Your task to perform on an android device: choose inbox layout in the gmail app Image 0: 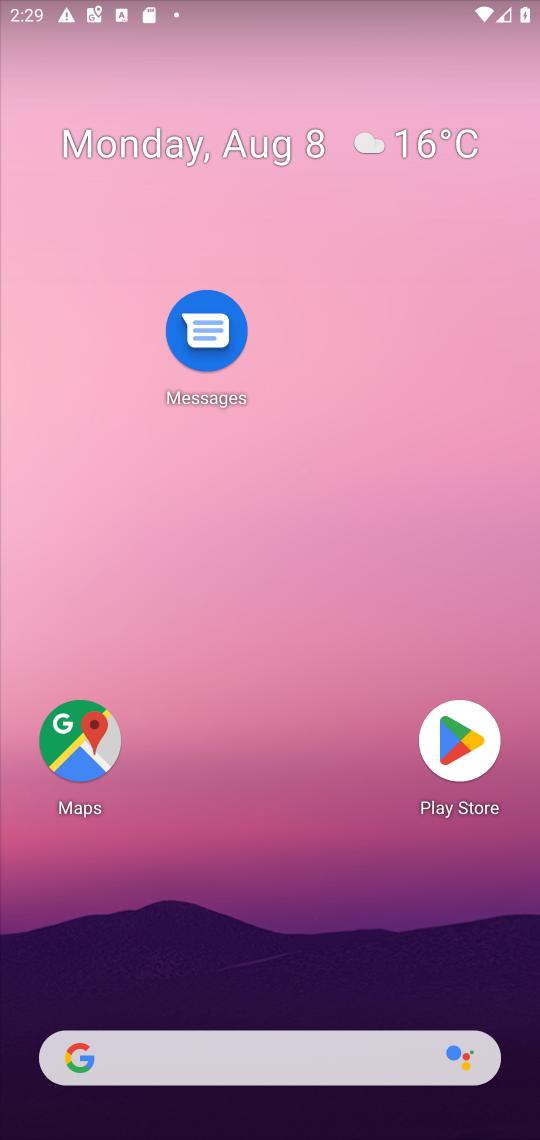
Step 0: drag from (349, 1030) to (340, 0)
Your task to perform on an android device: choose inbox layout in the gmail app Image 1: 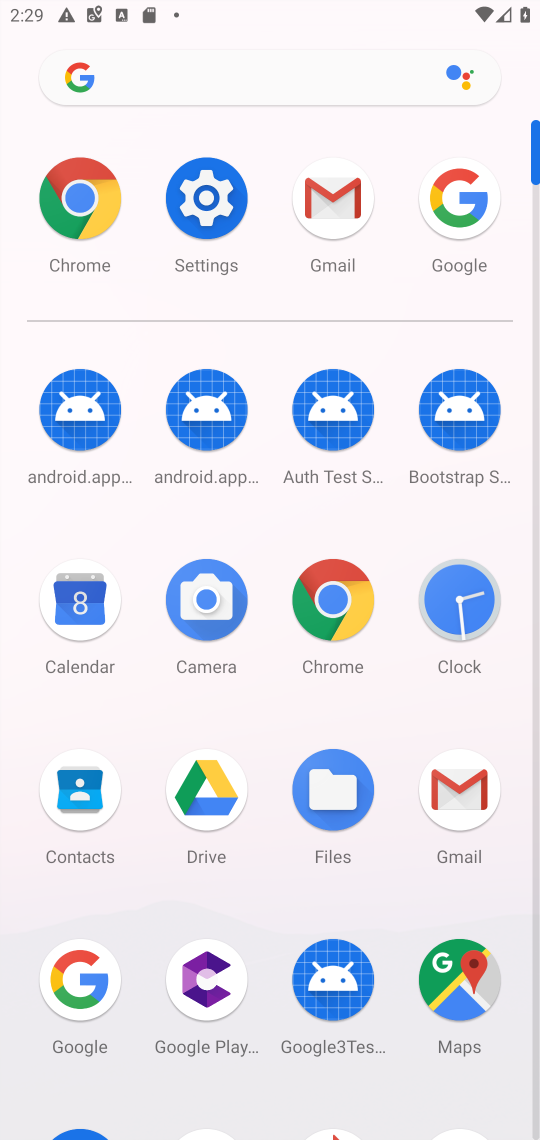
Step 1: click (467, 808)
Your task to perform on an android device: choose inbox layout in the gmail app Image 2: 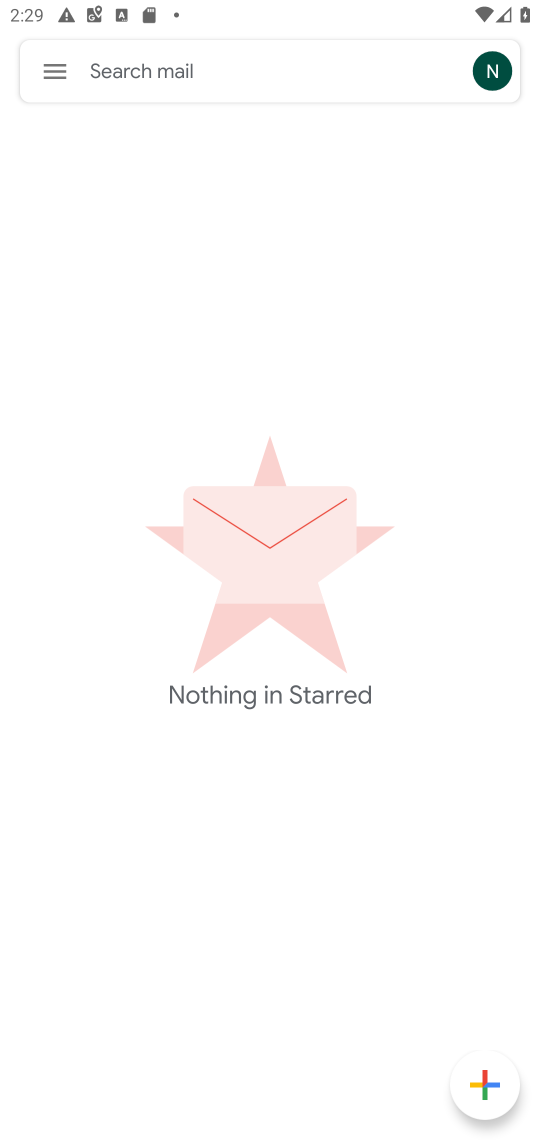
Step 2: click (55, 76)
Your task to perform on an android device: choose inbox layout in the gmail app Image 3: 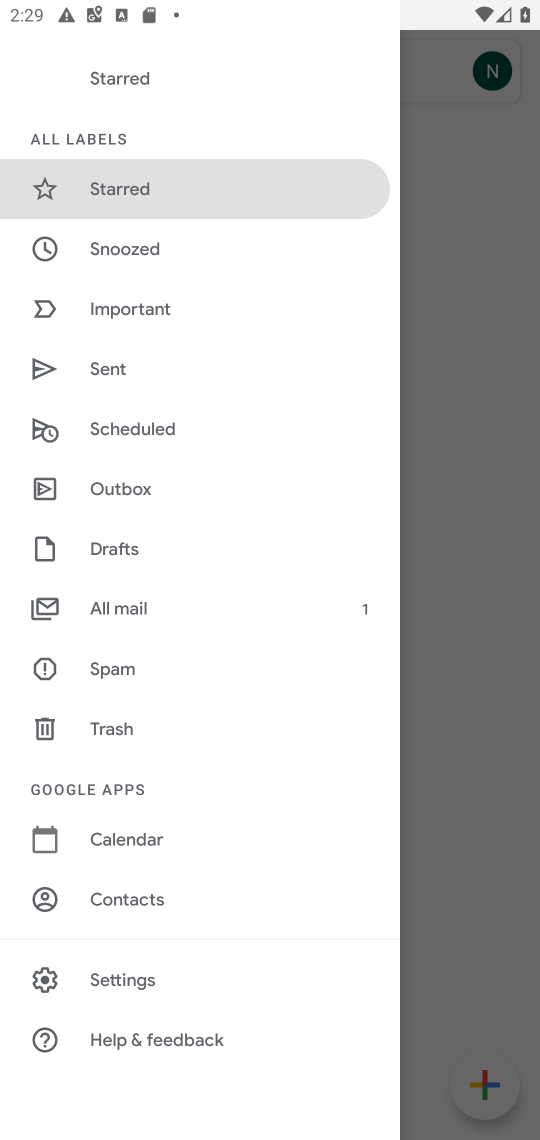
Step 3: click (130, 992)
Your task to perform on an android device: choose inbox layout in the gmail app Image 4: 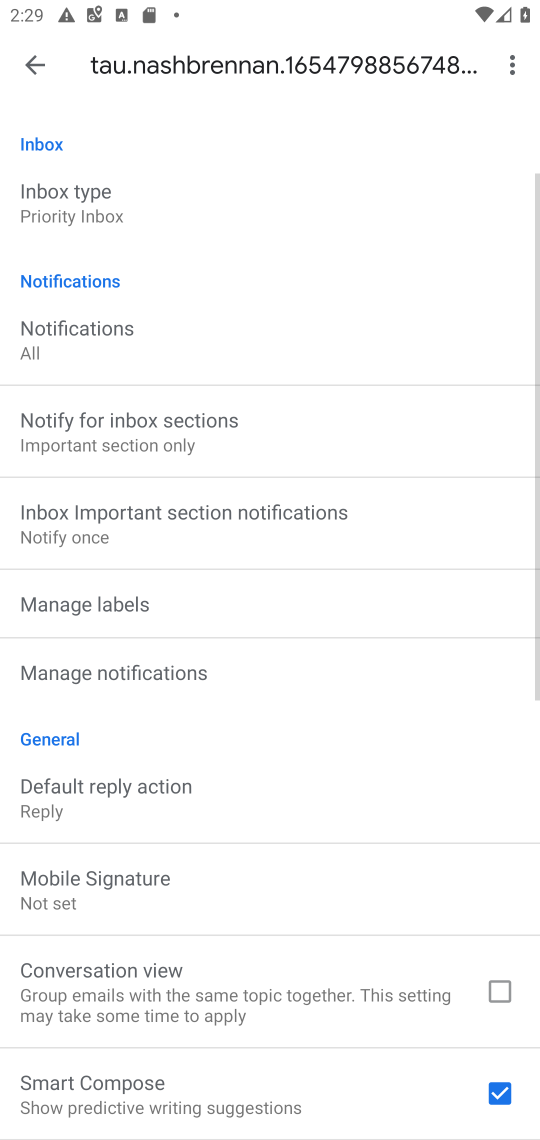
Step 4: click (112, 232)
Your task to perform on an android device: choose inbox layout in the gmail app Image 5: 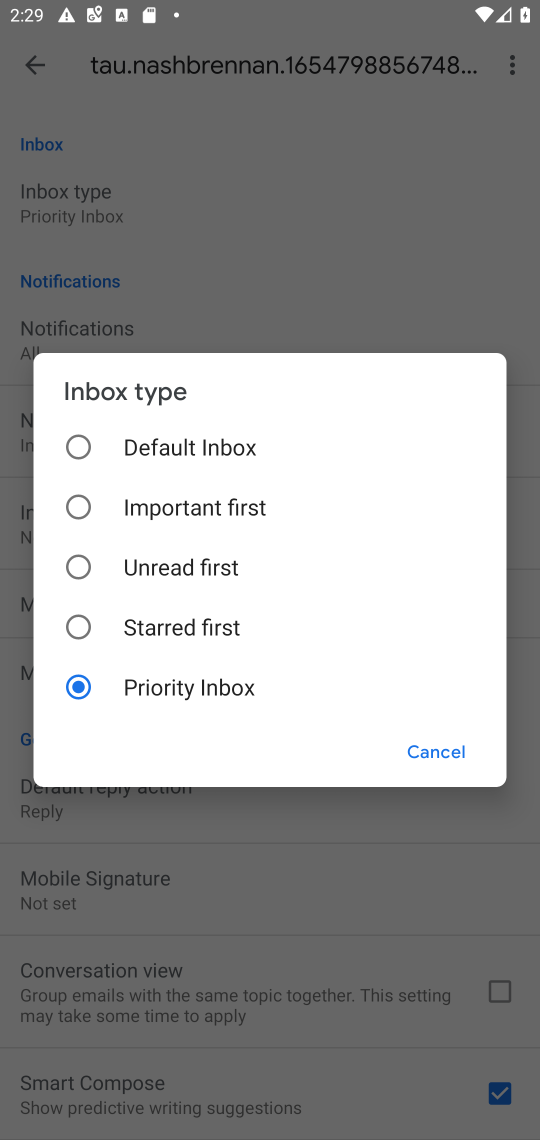
Step 5: click (71, 435)
Your task to perform on an android device: choose inbox layout in the gmail app Image 6: 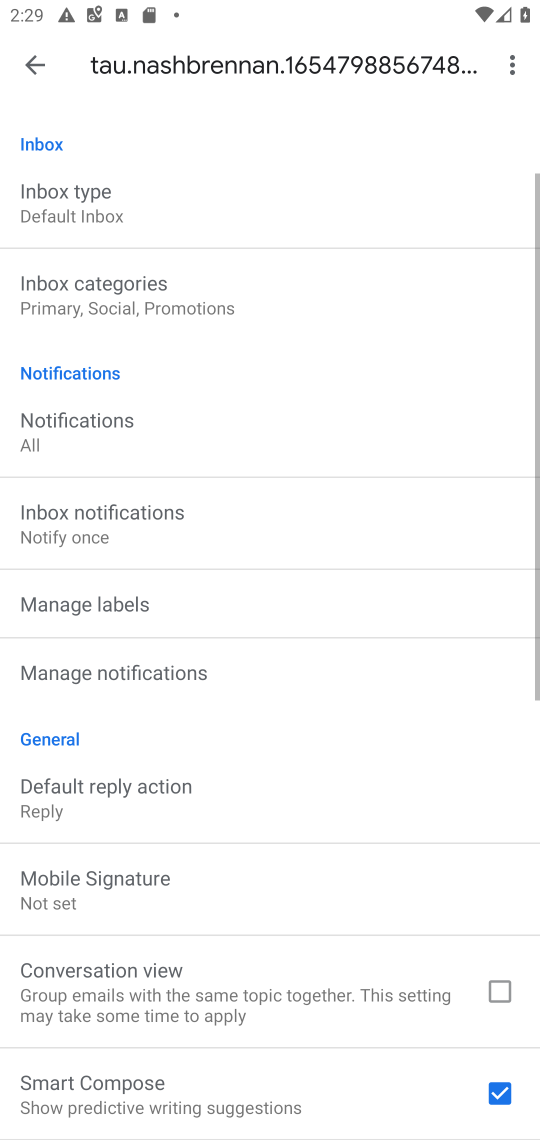
Step 6: task complete